Your task to perform on an android device: turn vacation reply on in the gmail app Image 0: 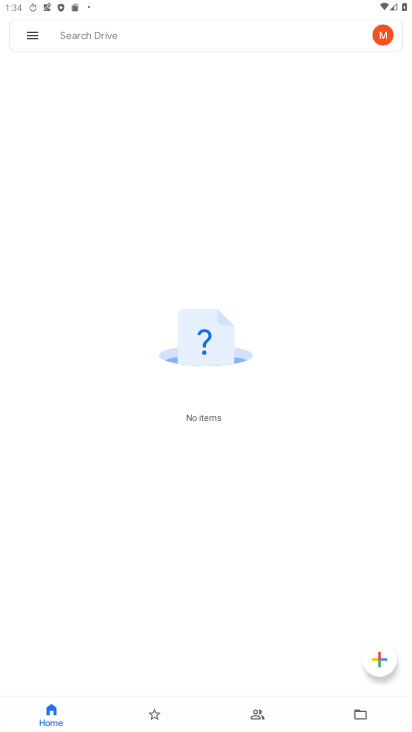
Step 0: press home button
Your task to perform on an android device: turn vacation reply on in the gmail app Image 1: 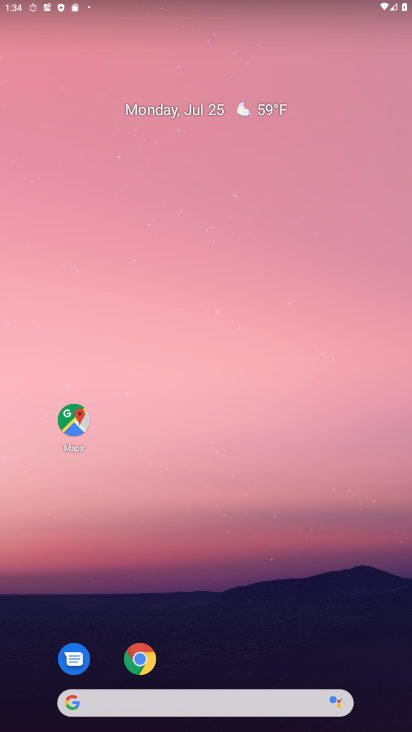
Step 1: drag from (240, 657) to (212, 17)
Your task to perform on an android device: turn vacation reply on in the gmail app Image 2: 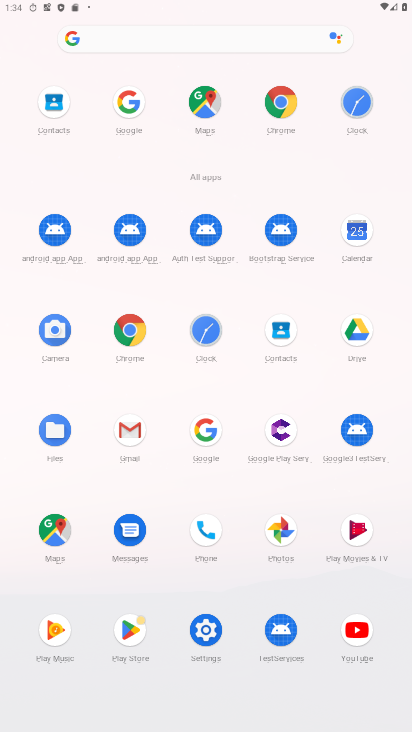
Step 2: click (133, 441)
Your task to perform on an android device: turn vacation reply on in the gmail app Image 3: 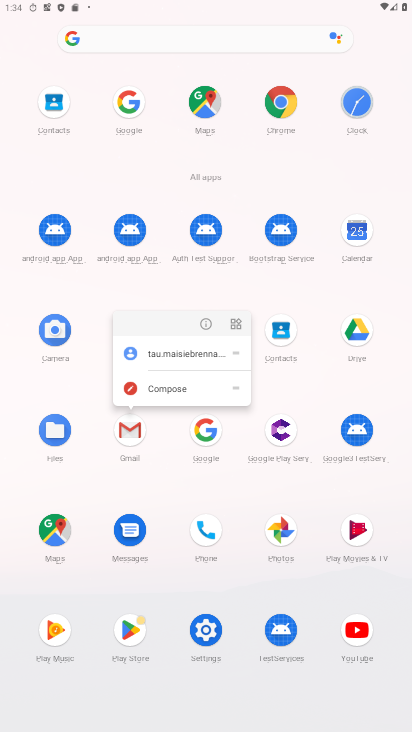
Step 3: click (133, 441)
Your task to perform on an android device: turn vacation reply on in the gmail app Image 4: 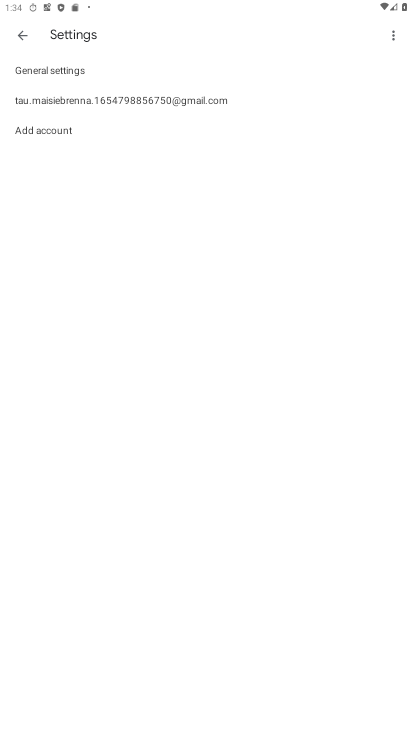
Step 4: click (71, 106)
Your task to perform on an android device: turn vacation reply on in the gmail app Image 5: 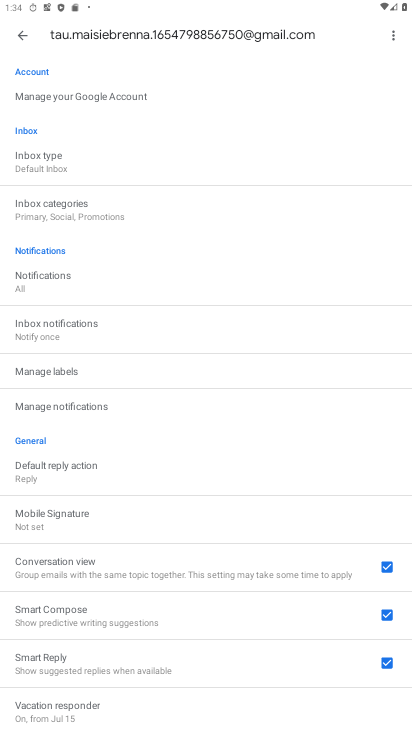
Step 5: drag from (128, 521) to (122, 137)
Your task to perform on an android device: turn vacation reply on in the gmail app Image 6: 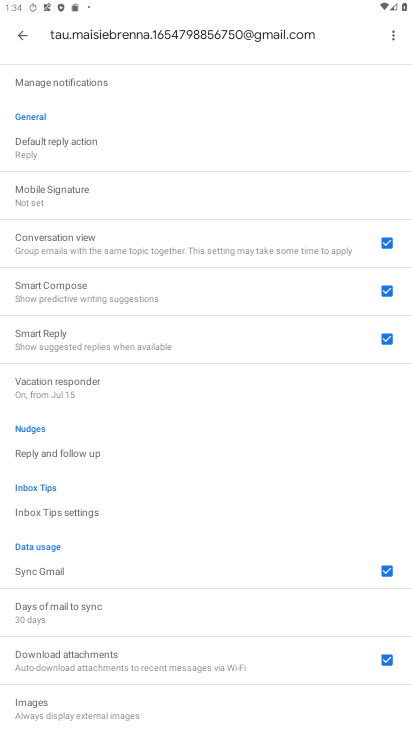
Step 6: click (47, 392)
Your task to perform on an android device: turn vacation reply on in the gmail app Image 7: 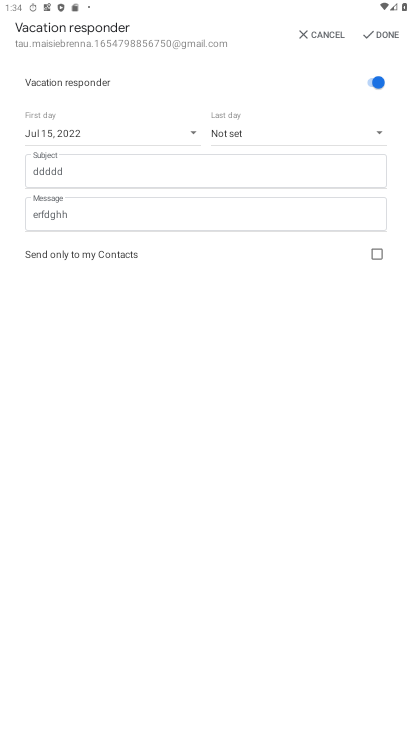
Step 7: click (386, 33)
Your task to perform on an android device: turn vacation reply on in the gmail app Image 8: 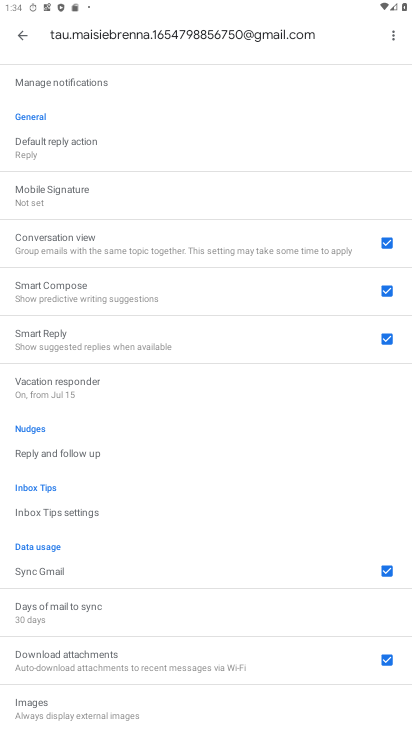
Step 8: task complete